Your task to perform on an android device: Open Youtube and go to the subscriptions tab Image 0: 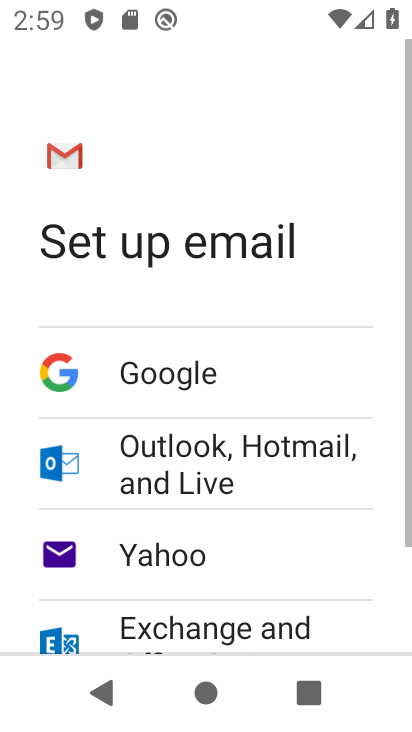
Step 0: press home button
Your task to perform on an android device: Open Youtube and go to the subscriptions tab Image 1: 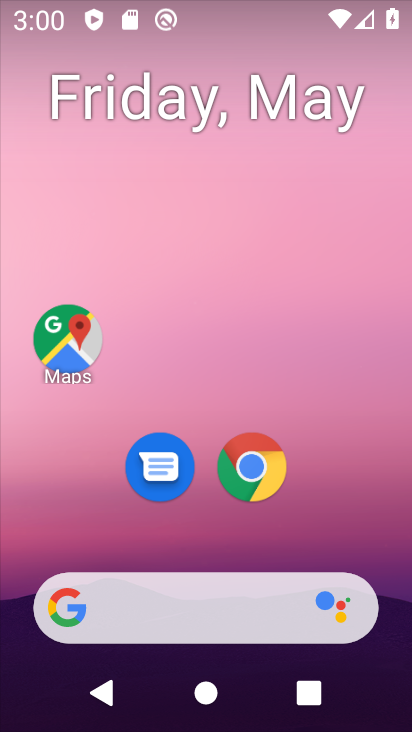
Step 1: drag from (340, 397) to (357, 49)
Your task to perform on an android device: Open Youtube and go to the subscriptions tab Image 2: 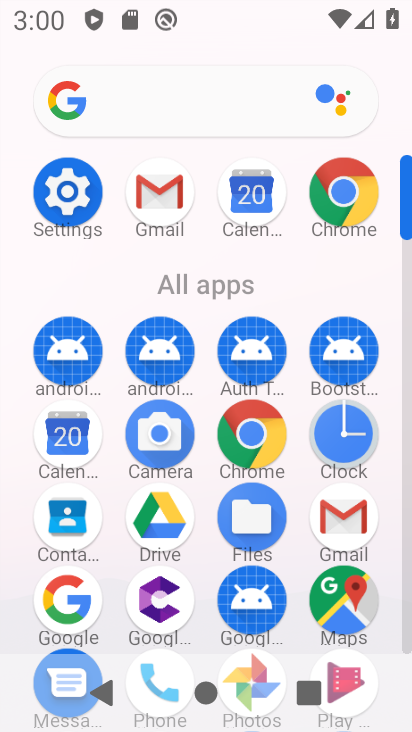
Step 2: drag from (385, 546) to (358, 161)
Your task to perform on an android device: Open Youtube and go to the subscriptions tab Image 3: 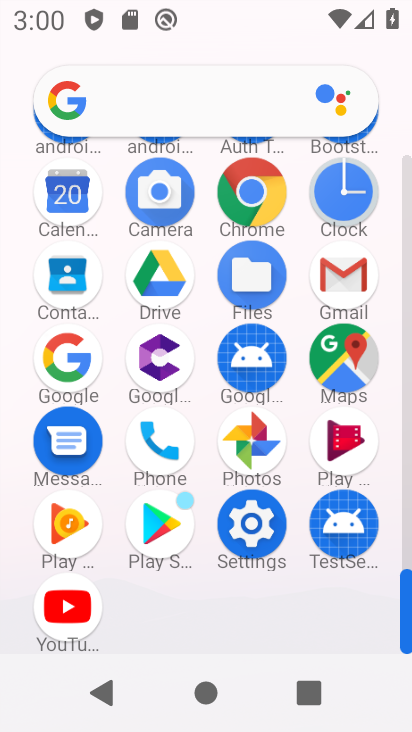
Step 3: click (66, 602)
Your task to perform on an android device: Open Youtube and go to the subscriptions tab Image 4: 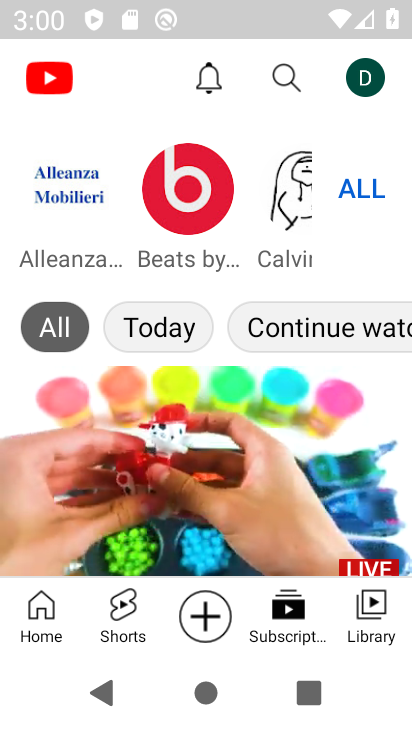
Step 4: click (276, 618)
Your task to perform on an android device: Open Youtube and go to the subscriptions tab Image 5: 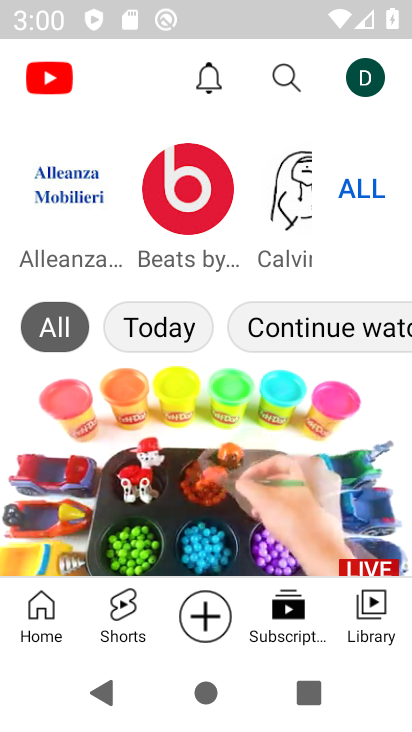
Step 5: task complete